Your task to perform on an android device: Open the calendar app, open the side menu, and click the "Day" option Image 0: 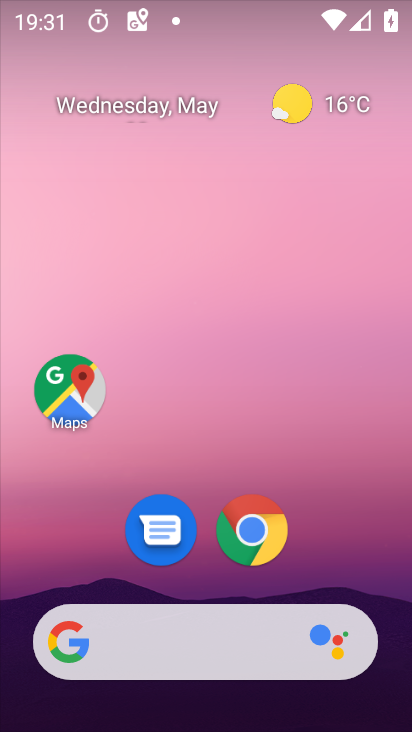
Step 0: drag from (164, 604) to (229, 227)
Your task to perform on an android device: Open the calendar app, open the side menu, and click the "Day" option Image 1: 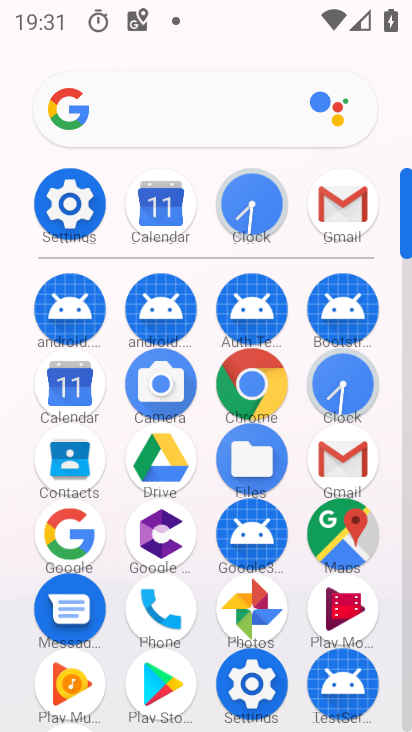
Step 1: click (63, 386)
Your task to perform on an android device: Open the calendar app, open the side menu, and click the "Day" option Image 2: 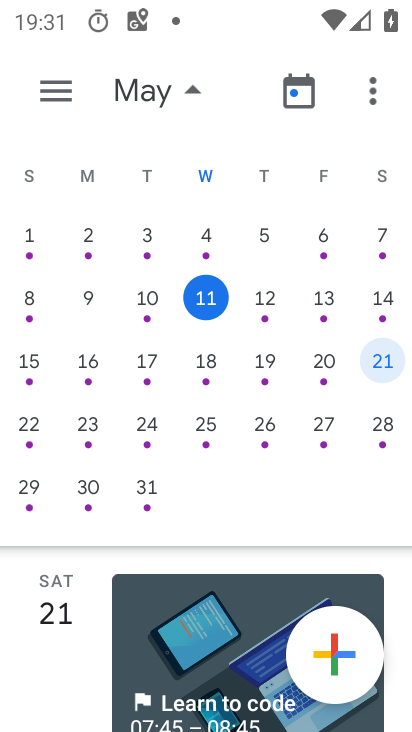
Step 2: click (61, 81)
Your task to perform on an android device: Open the calendar app, open the side menu, and click the "Day" option Image 3: 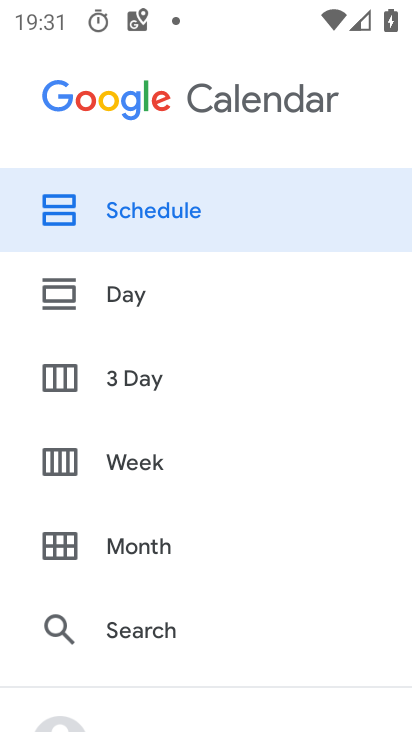
Step 3: click (142, 304)
Your task to perform on an android device: Open the calendar app, open the side menu, and click the "Day" option Image 4: 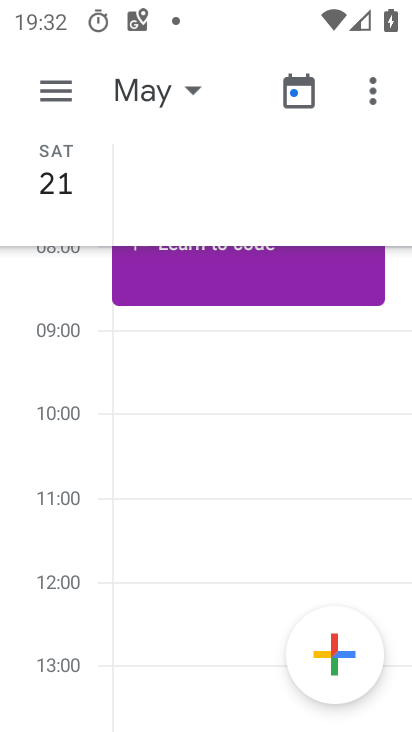
Step 4: task complete